Your task to perform on an android device: uninstall "Booking.com: Hotels and more" Image 0: 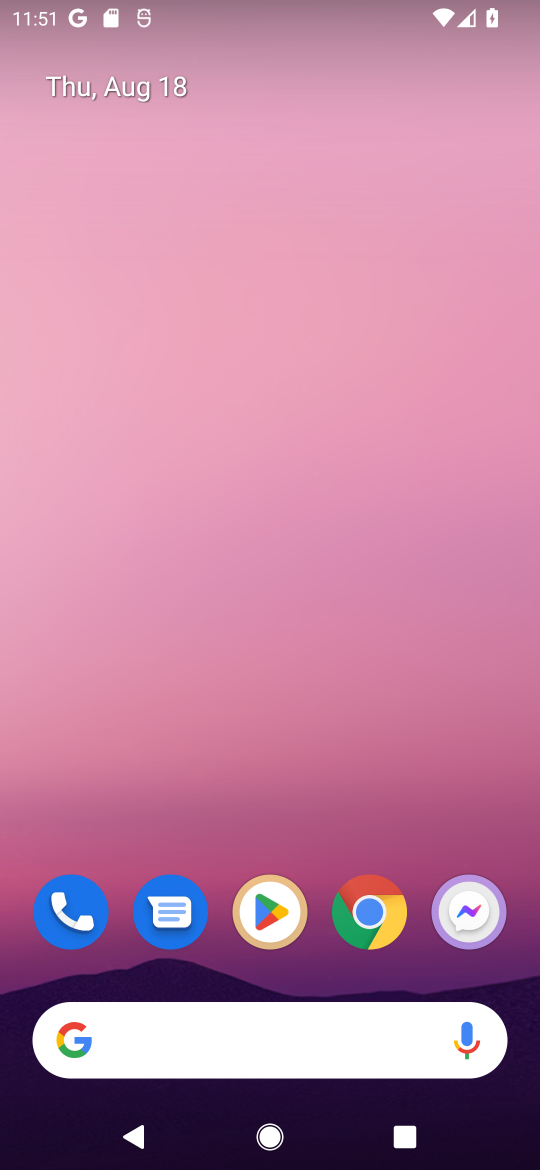
Step 0: click (265, 906)
Your task to perform on an android device: uninstall "Booking.com: Hotels and more" Image 1: 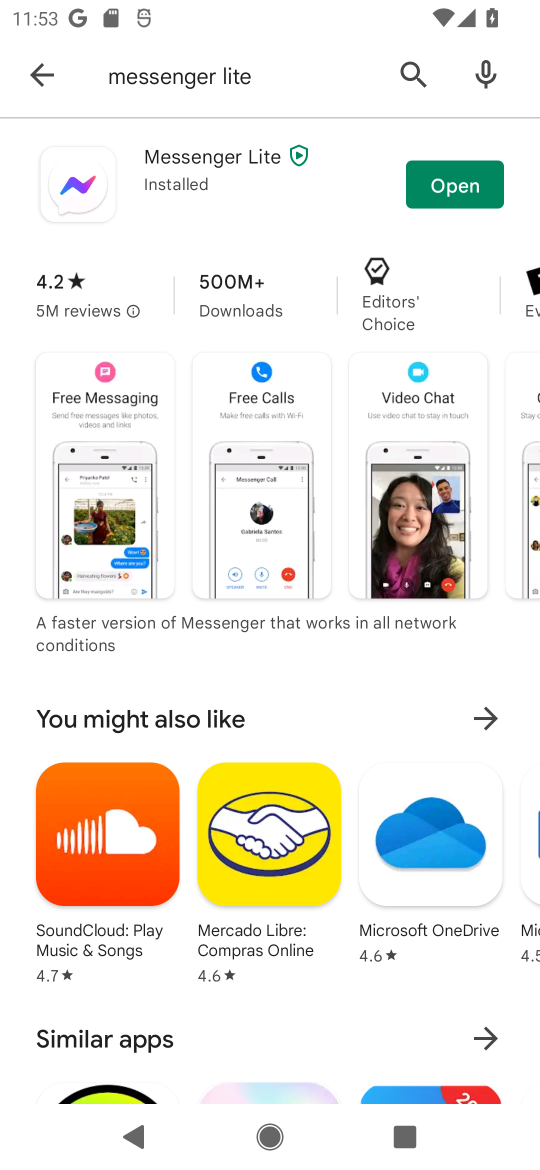
Step 1: click (424, 68)
Your task to perform on an android device: uninstall "Booking.com: Hotels and more" Image 2: 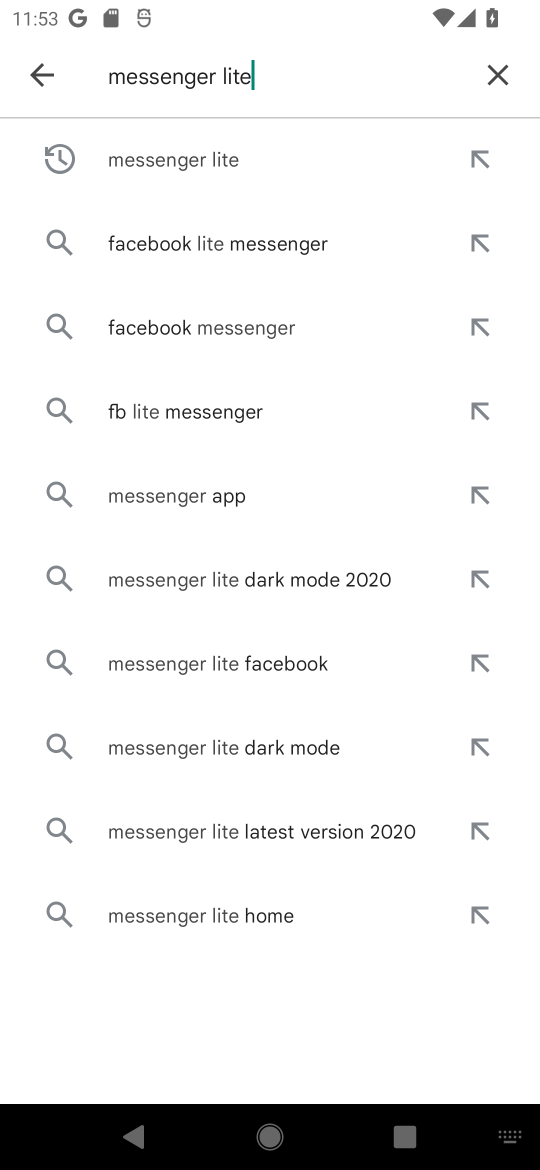
Step 2: click (504, 71)
Your task to perform on an android device: uninstall "Booking.com: Hotels and more" Image 3: 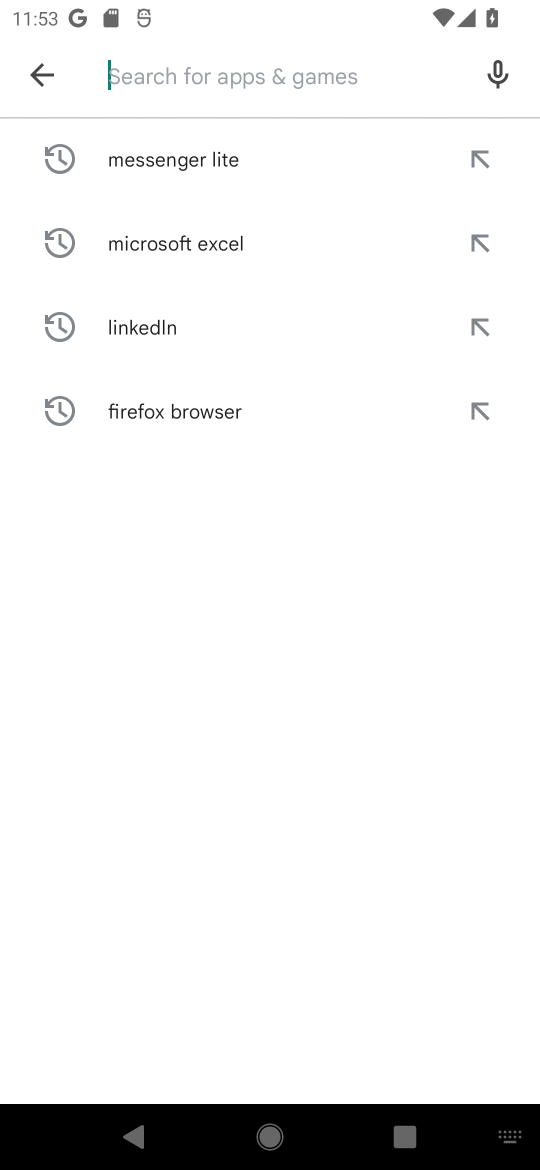
Step 3: click (243, 83)
Your task to perform on an android device: uninstall "Booking.com: Hotels and more" Image 4: 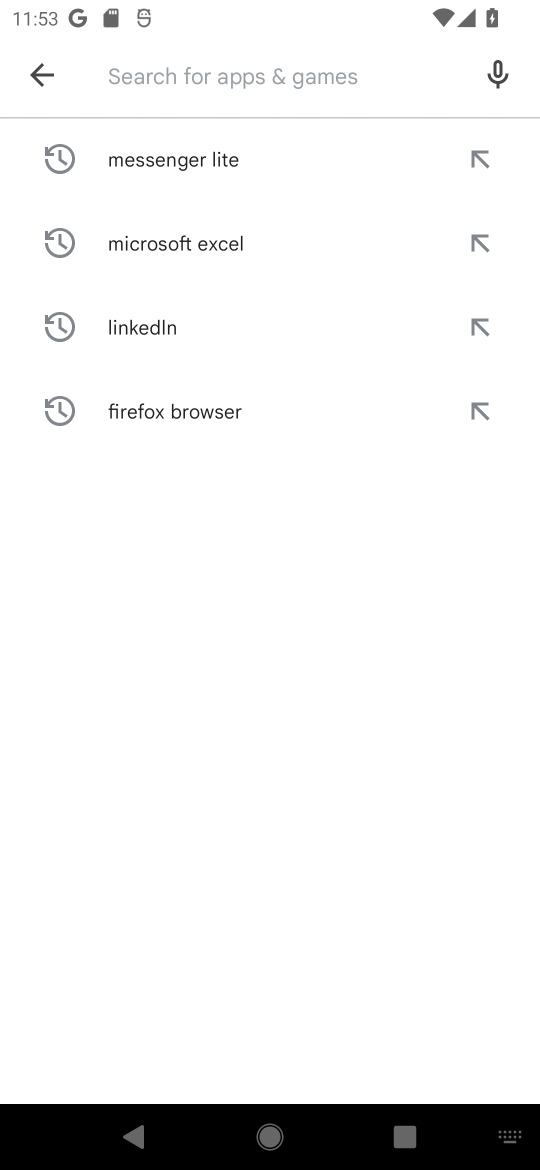
Step 4: type "Booking.com"
Your task to perform on an android device: uninstall "Booking.com: Hotels and more" Image 5: 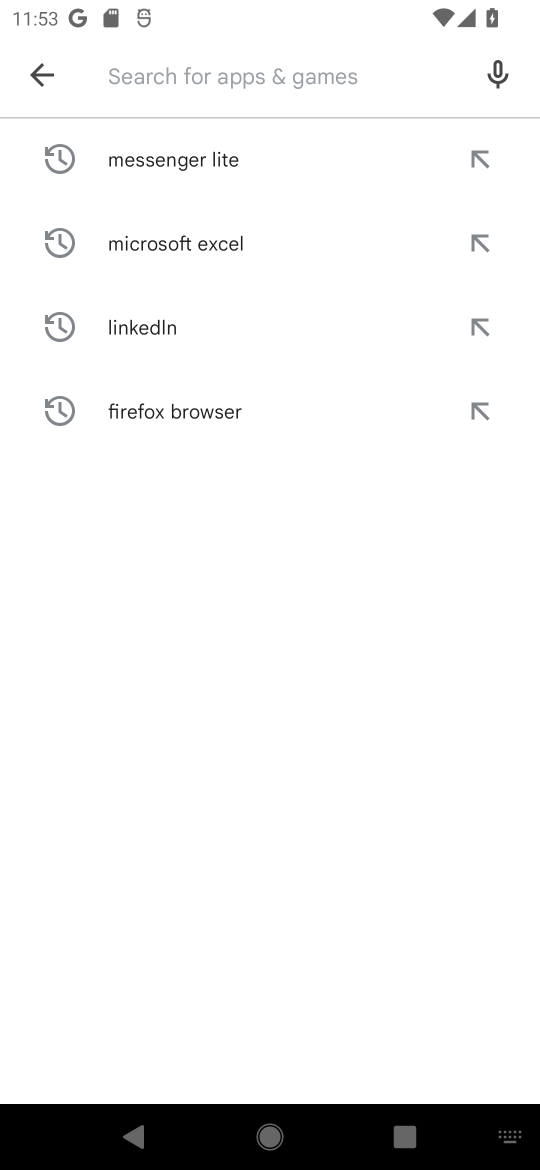
Step 5: click (258, 714)
Your task to perform on an android device: uninstall "Booking.com: Hotels and more" Image 6: 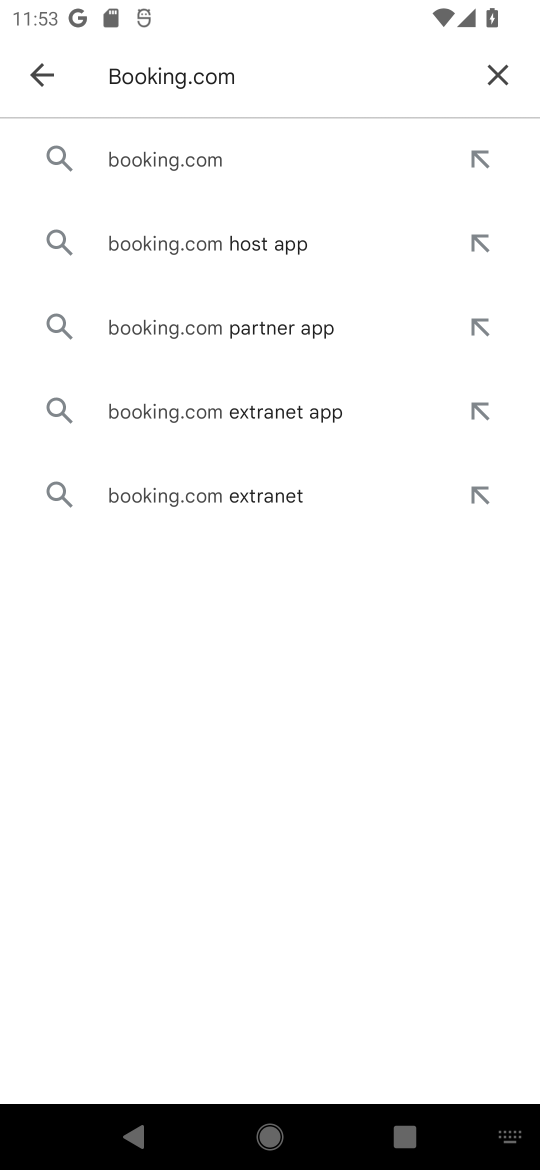
Step 6: click (187, 171)
Your task to perform on an android device: uninstall "Booking.com: Hotels and more" Image 7: 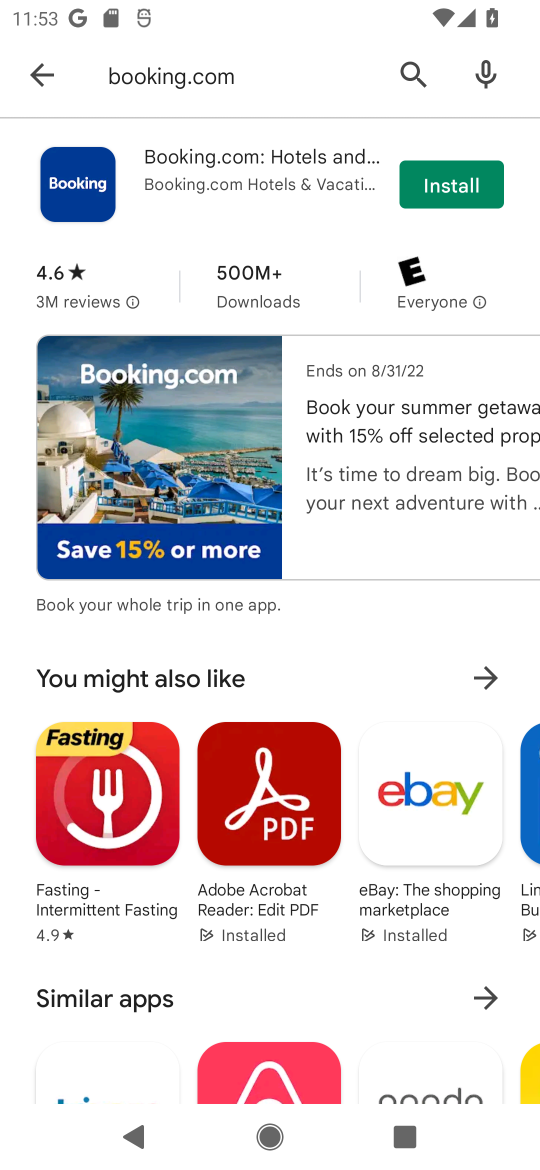
Step 7: click (170, 173)
Your task to perform on an android device: uninstall "Booking.com: Hotels and more" Image 8: 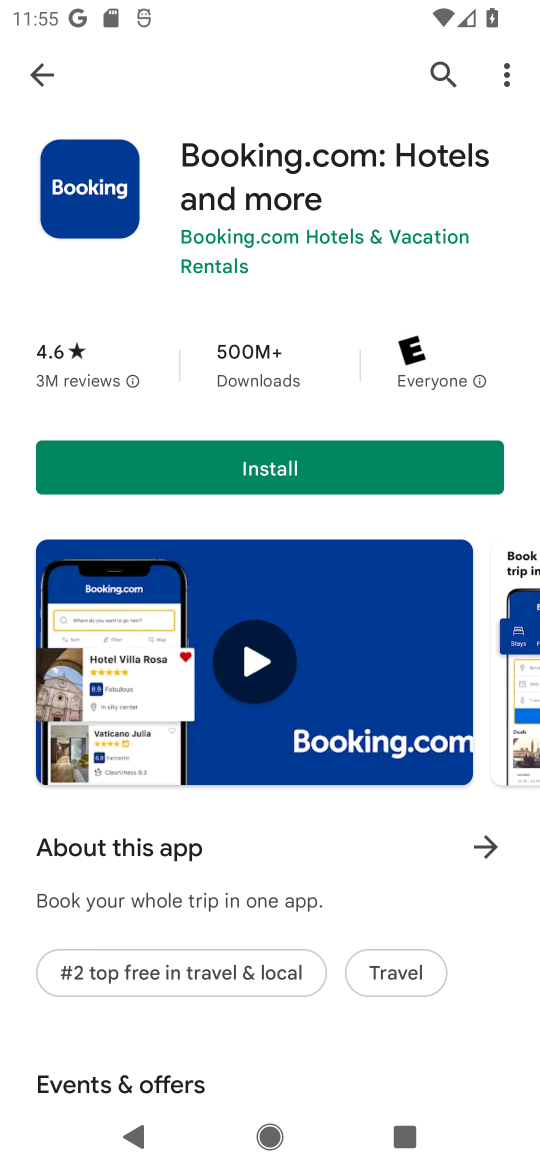
Step 8: task complete